Your task to perform on an android device: move a message to another label in the gmail app Image 0: 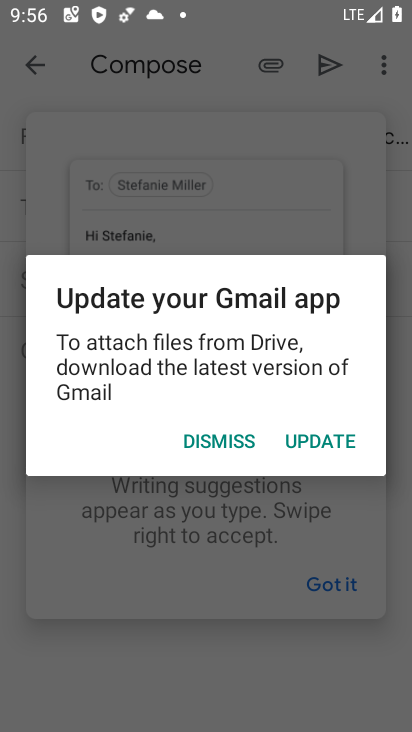
Step 0: press home button
Your task to perform on an android device: move a message to another label in the gmail app Image 1: 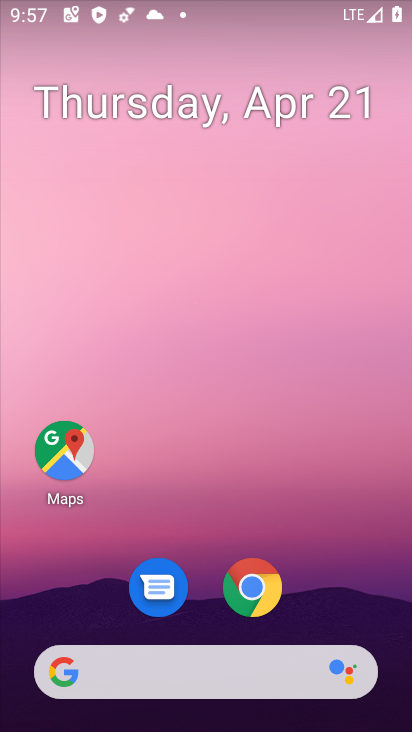
Step 1: drag from (334, 603) to (371, 135)
Your task to perform on an android device: move a message to another label in the gmail app Image 2: 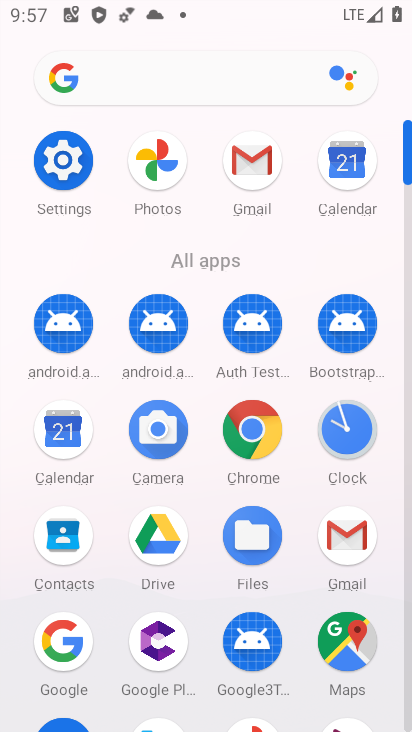
Step 2: click (348, 548)
Your task to perform on an android device: move a message to another label in the gmail app Image 3: 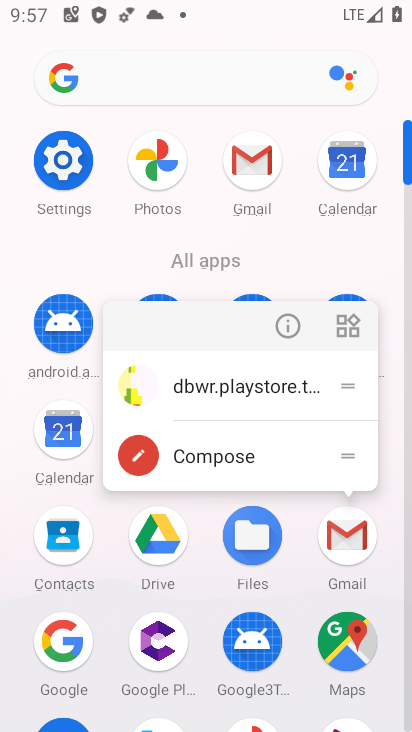
Step 3: click (342, 527)
Your task to perform on an android device: move a message to another label in the gmail app Image 4: 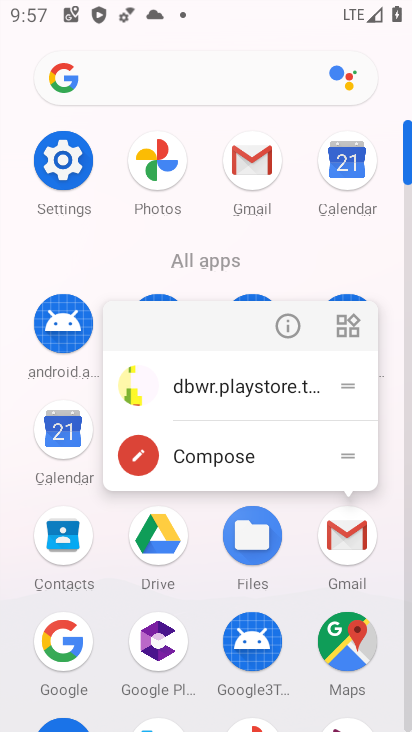
Step 4: click (361, 540)
Your task to perform on an android device: move a message to another label in the gmail app Image 5: 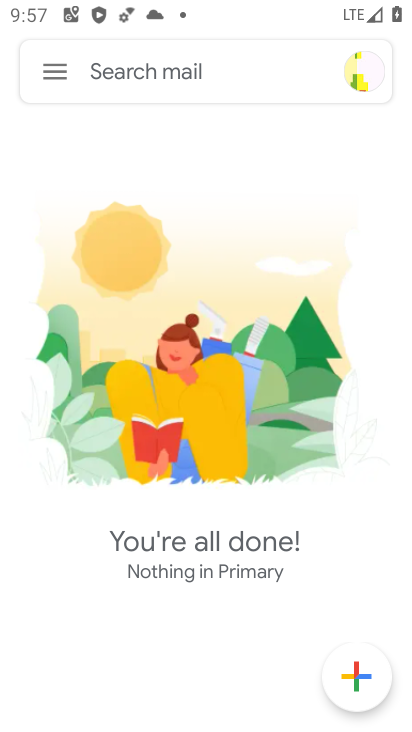
Step 5: task complete